Your task to perform on an android device: install app "Skype" Image 0: 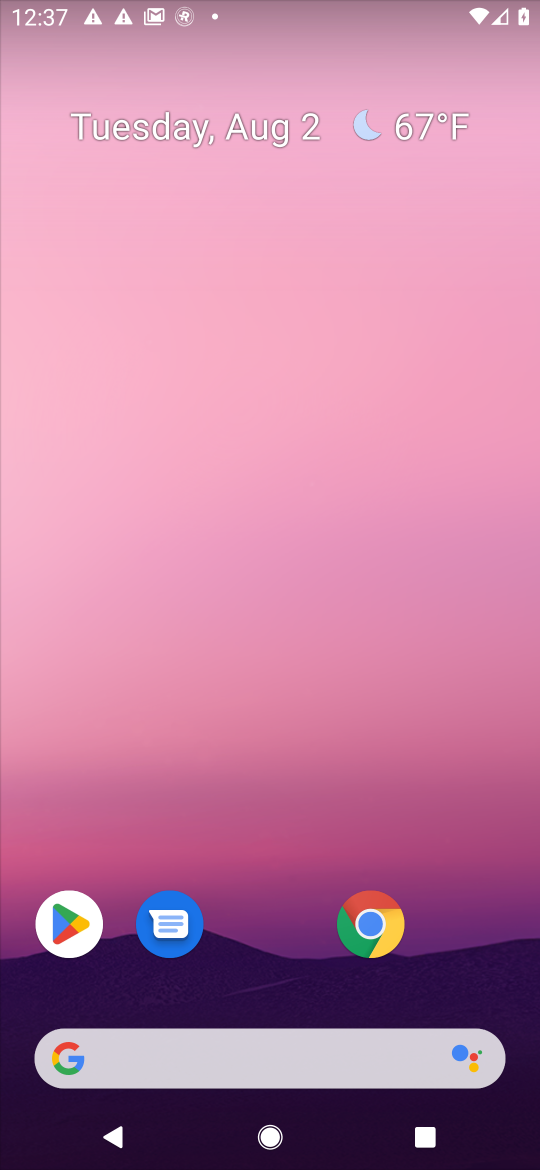
Step 0: press home button
Your task to perform on an android device: install app "Skype" Image 1: 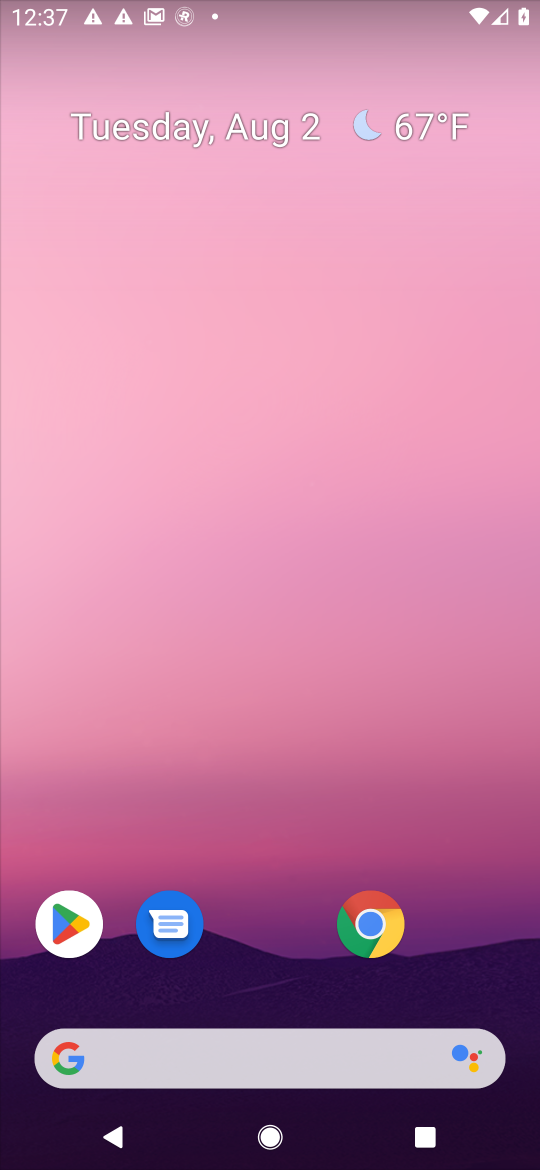
Step 1: drag from (270, 989) to (281, 61)
Your task to perform on an android device: install app "Skype" Image 2: 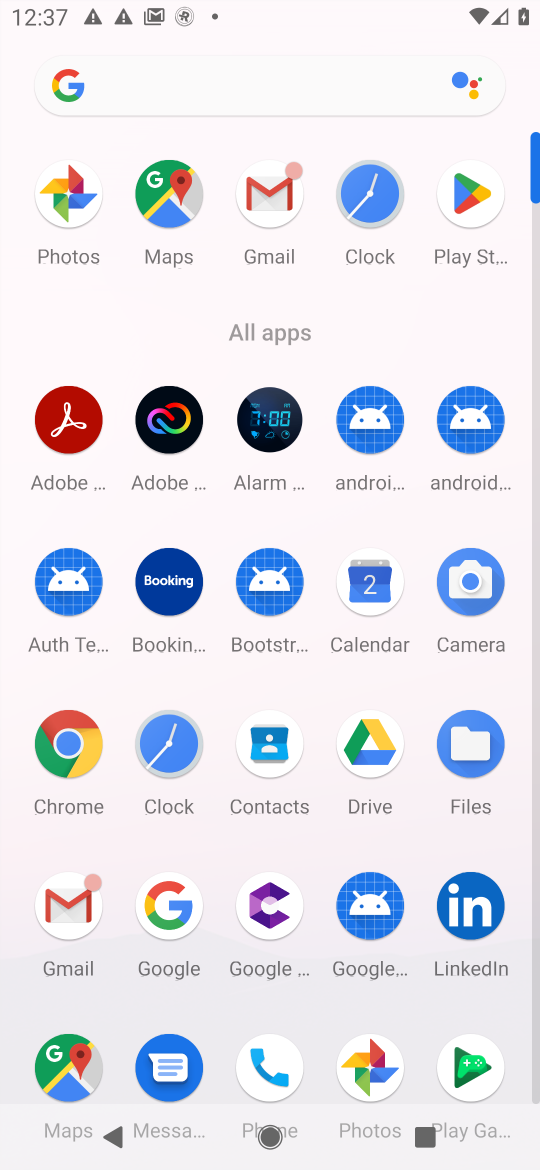
Step 2: click (471, 189)
Your task to perform on an android device: install app "Skype" Image 3: 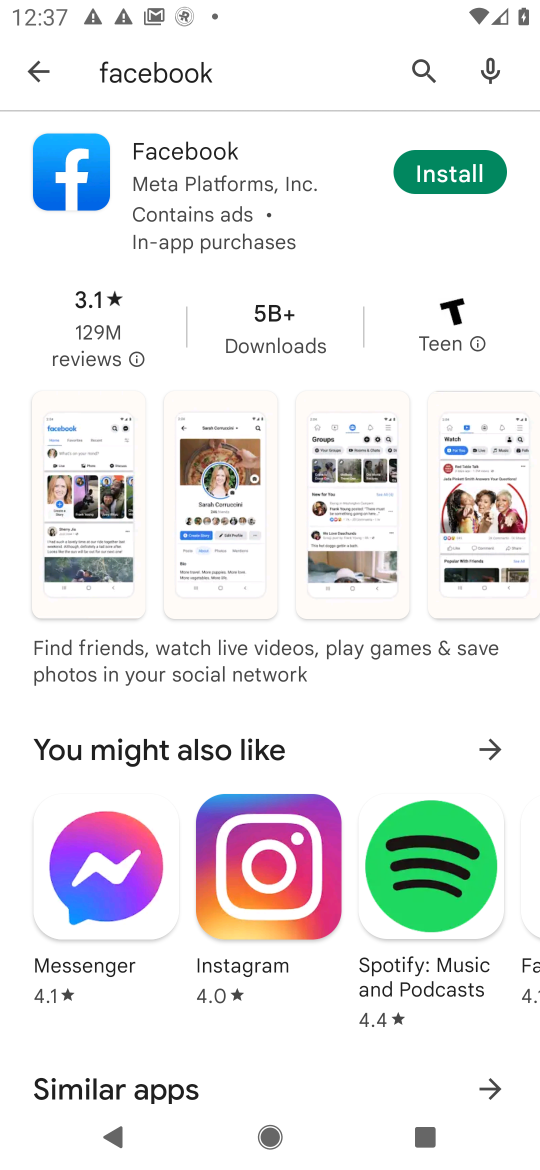
Step 3: click (404, 64)
Your task to perform on an android device: install app "Skype" Image 4: 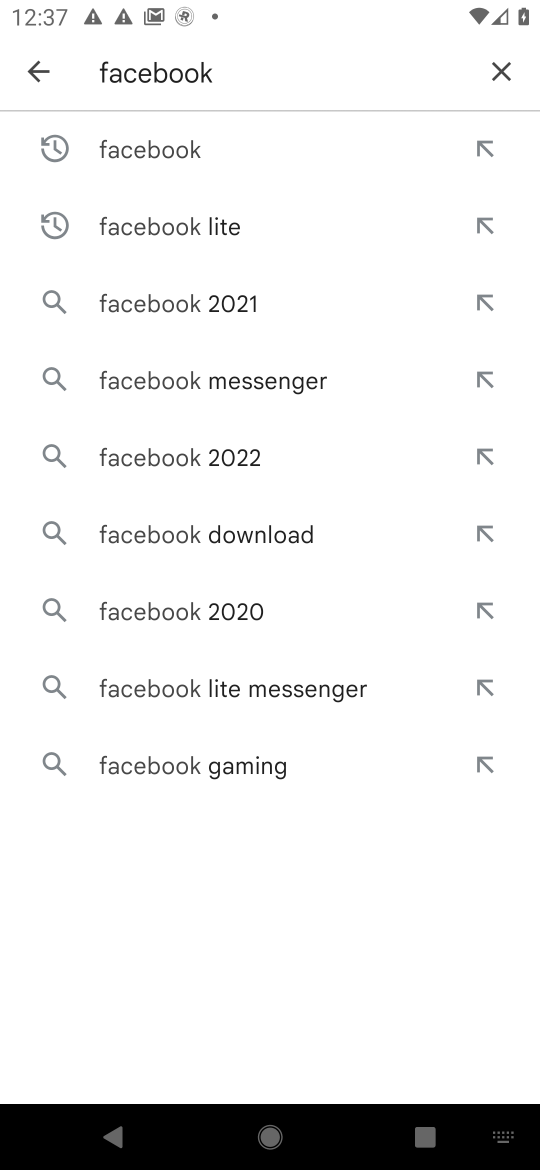
Step 4: click (500, 66)
Your task to perform on an android device: install app "Skype" Image 5: 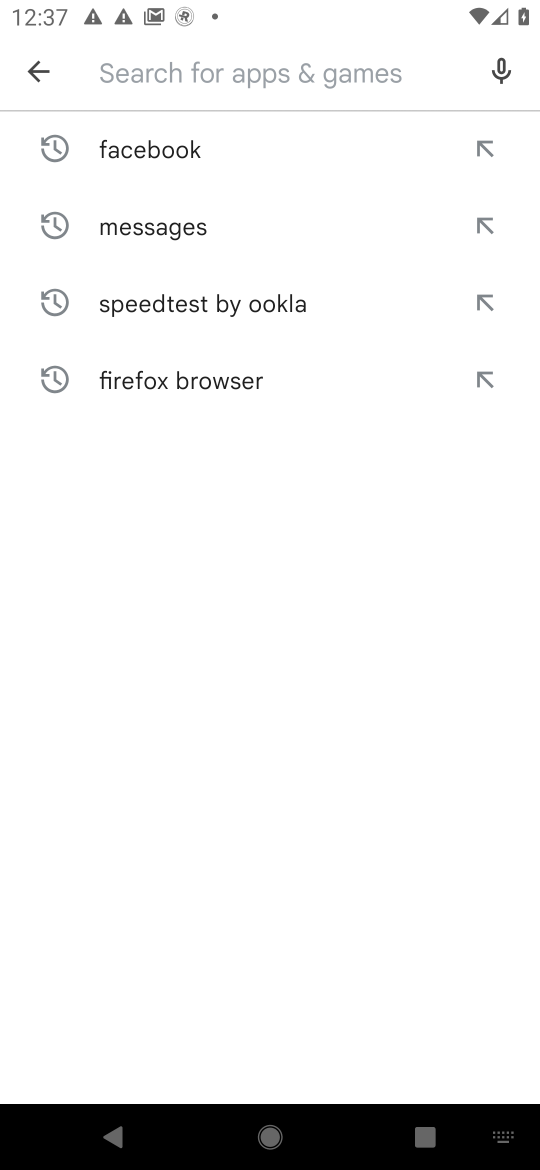
Step 5: type "Skype"
Your task to perform on an android device: install app "Skype" Image 6: 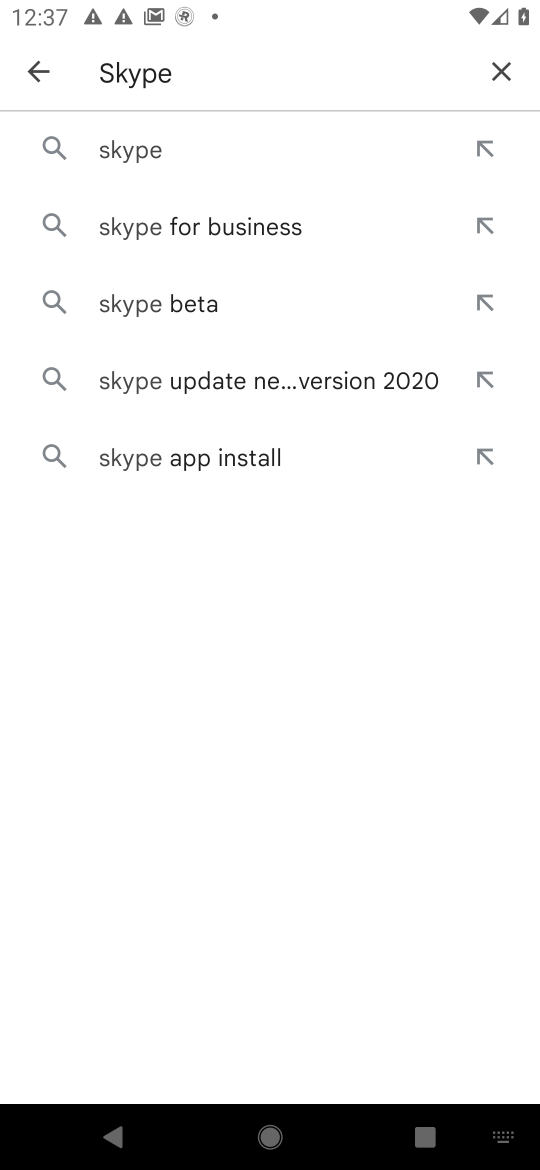
Step 6: click (281, 151)
Your task to perform on an android device: install app "Skype" Image 7: 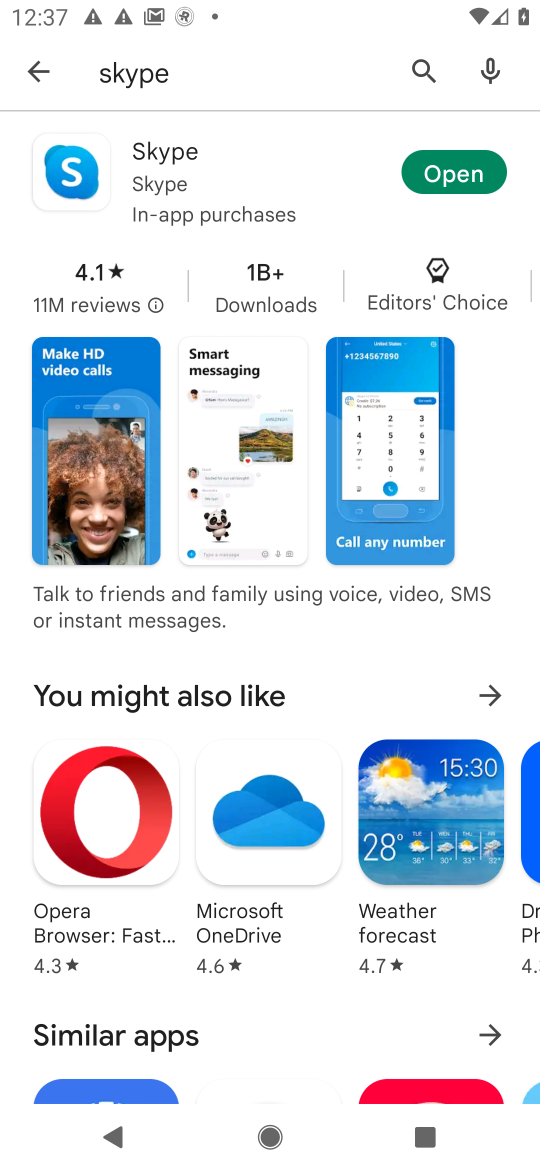
Step 7: click (445, 177)
Your task to perform on an android device: install app "Skype" Image 8: 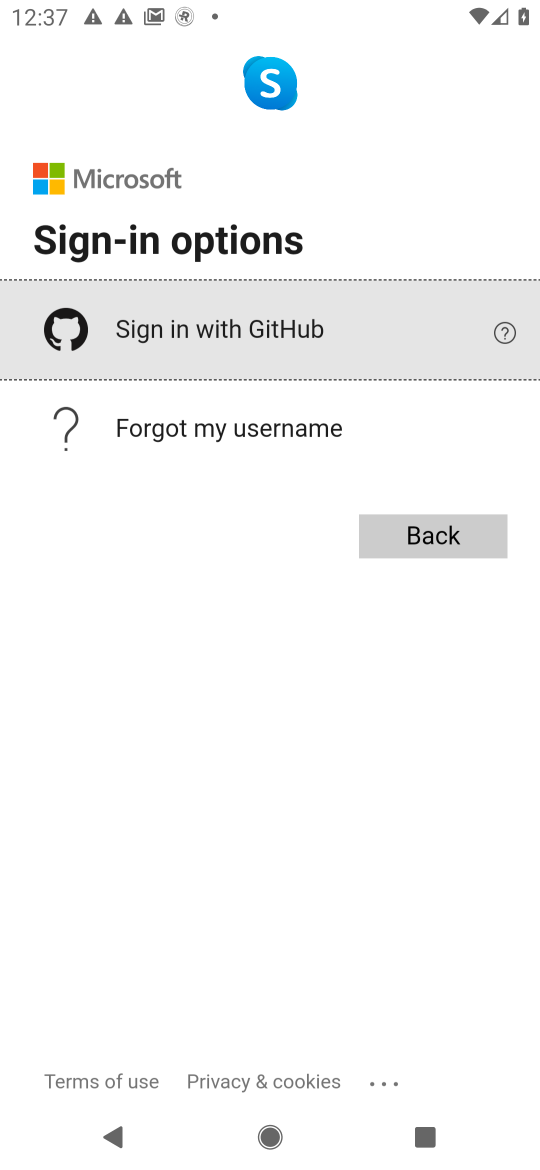
Step 8: task complete